Your task to perform on an android device: empty trash in google photos Image 0: 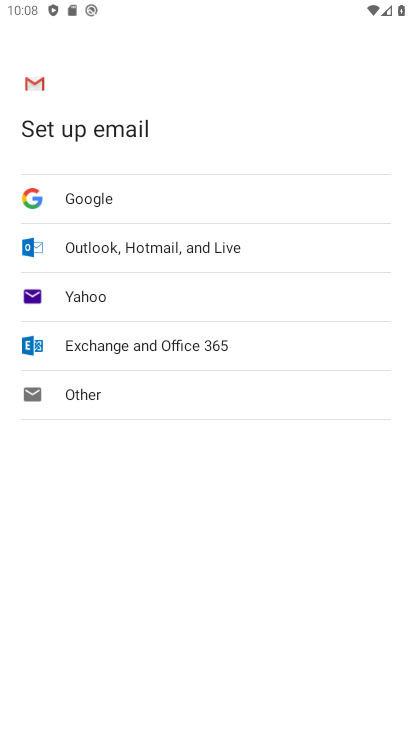
Step 0: press home button
Your task to perform on an android device: empty trash in google photos Image 1: 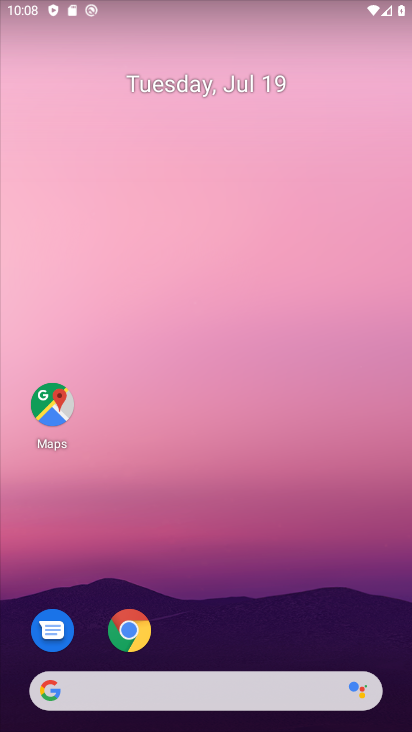
Step 1: drag from (187, 636) to (195, 233)
Your task to perform on an android device: empty trash in google photos Image 2: 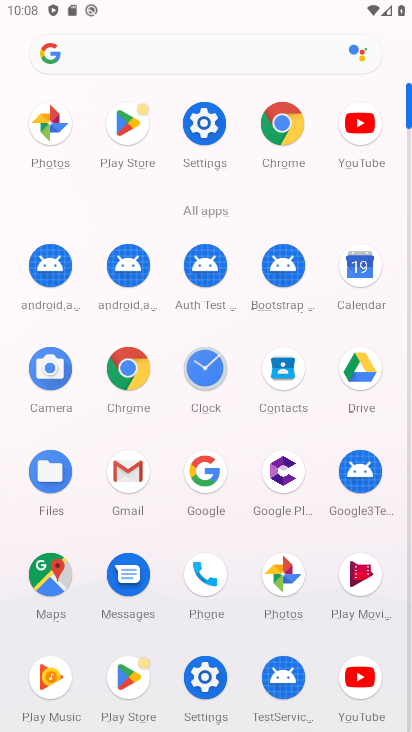
Step 2: click (277, 575)
Your task to perform on an android device: empty trash in google photos Image 3: 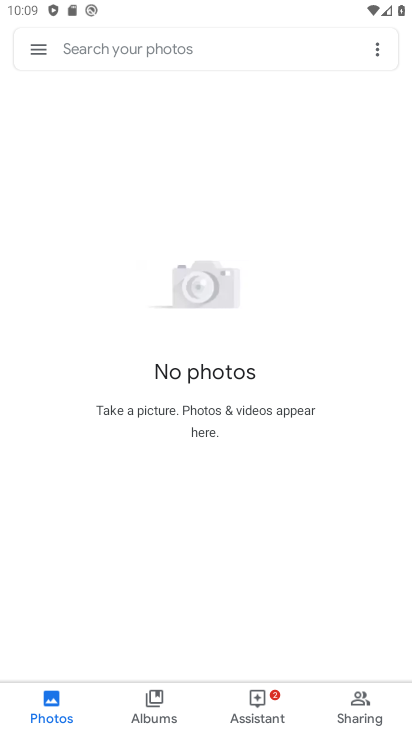
Step 3: click (33, 46)
Your task to perform on an android device: empty trash in google photos Image 4: 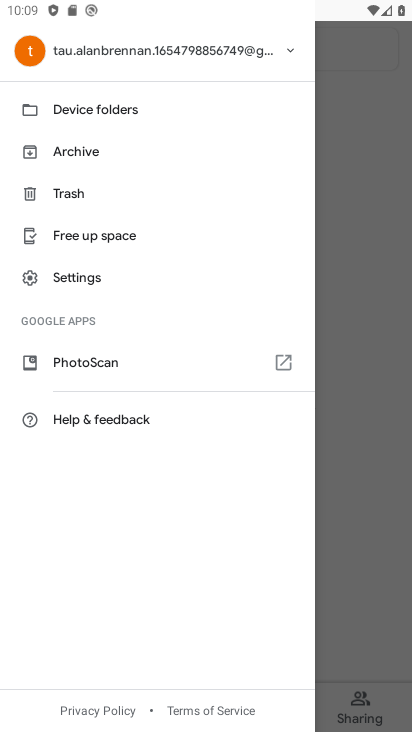
Step 4: click (53, 195)
Your task to perform on an android device: empty trash in google photos Image 5: 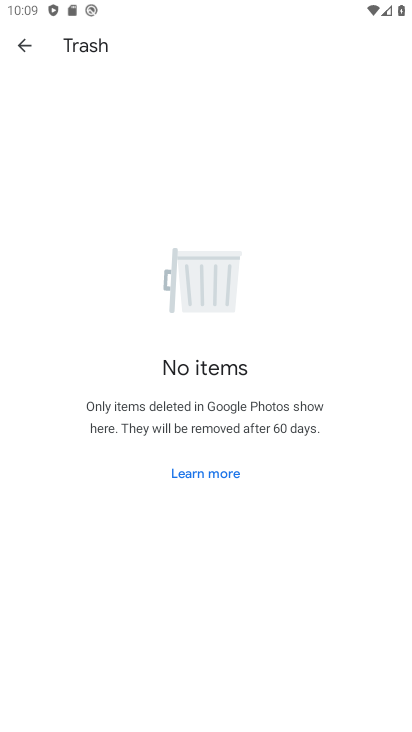
Step 5: task complete